Your task to perform on an android device: turn on location history Image 0: 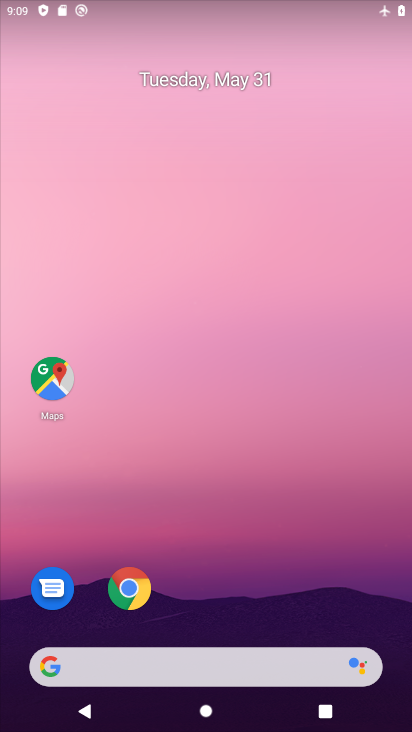
Step 0: drag from (128, 721) to (154, 3)
Your task to perform on an android device: turn on location history Image 1: 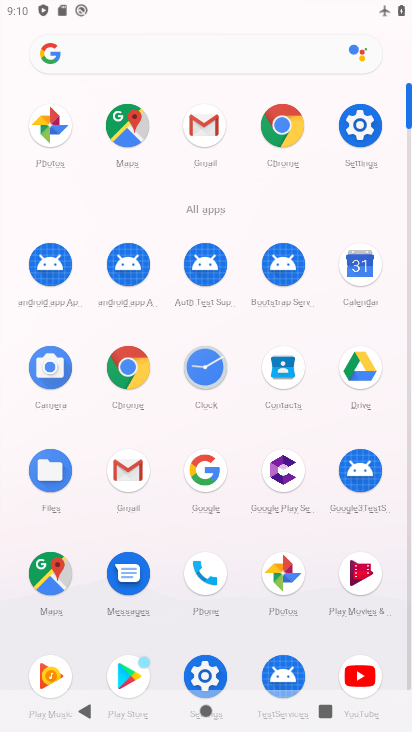
Step 1: click (133, 142)
Your task to perform on an android device: turn on location history Image 2: 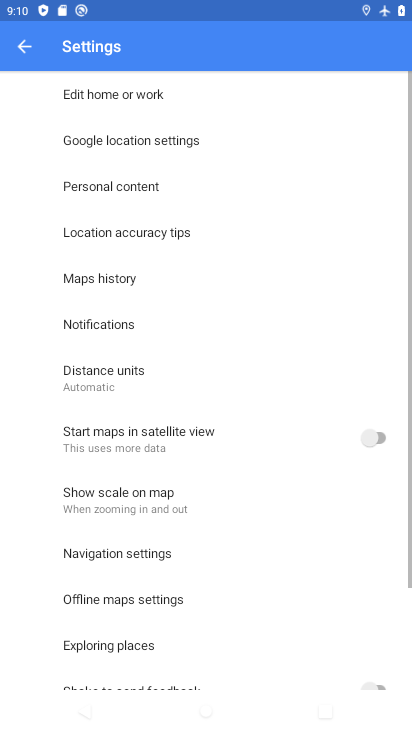
Step 2: drag from (177, 592) to (270, 154)
Your task to perform on an android device: turn on location history Image 3: 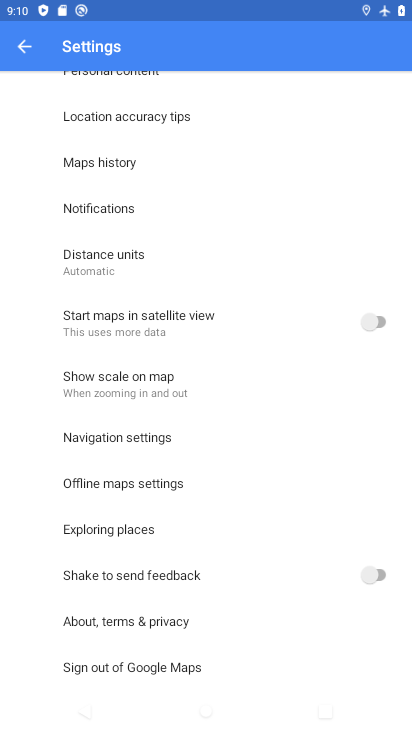
Step 3: click (30, 48)
Your task to perform on an android device: turn on location history Image 4: 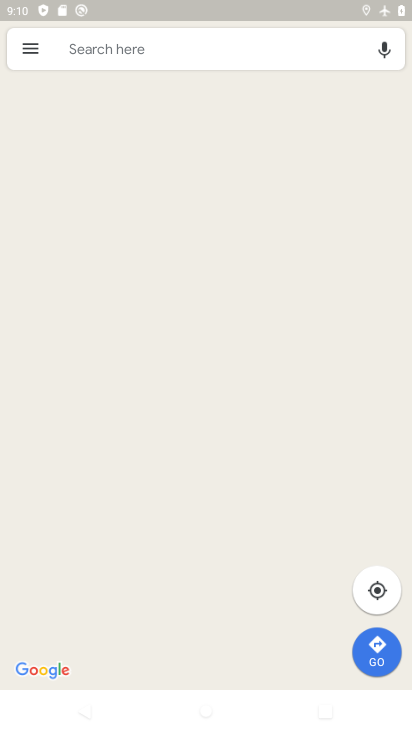
Step 4: click (30, 48)
Your task to perform on an android device: turn on location history Image 5: 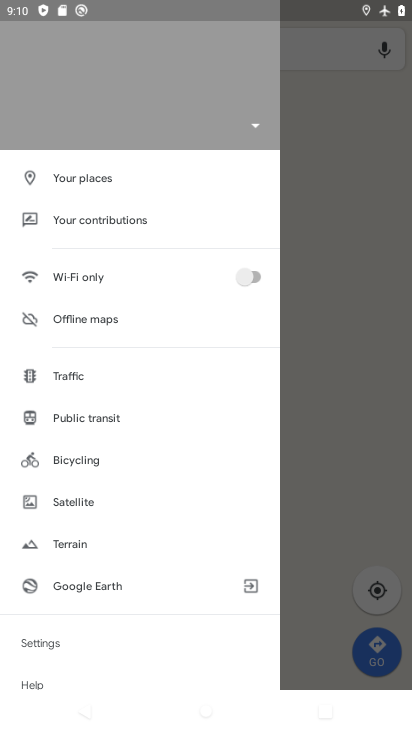
Step 5: task complete